Your task to perform on an android device: Open Chrome and go to the settings page Image 0: 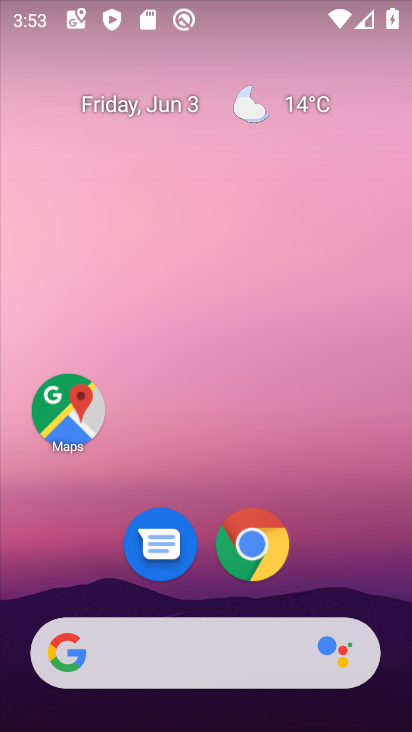
Step 0: click (256, 542)
Your task to perform on an android device: Open Chrome and go to the settings page Image 1: 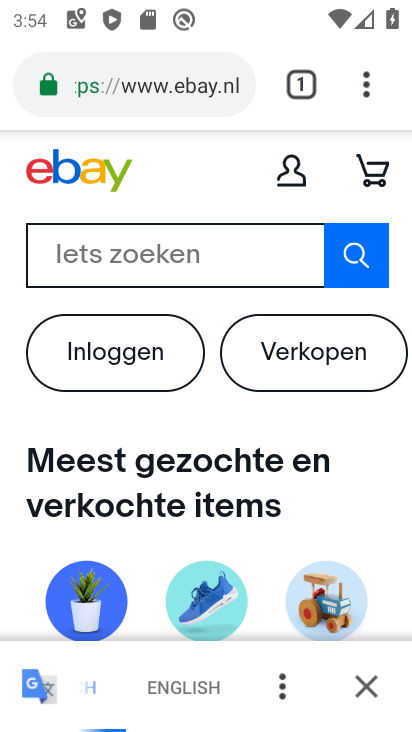
Step 1: click (364, 91)
Your task to perform on an android device: Open Chrome and go to the settings page Image 2: 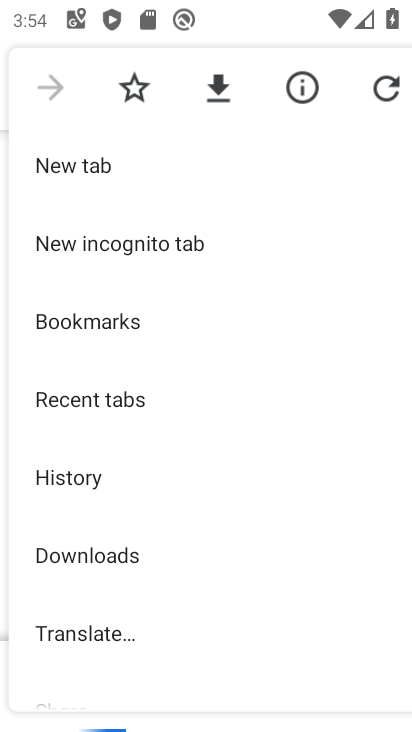
Step 2: drag from (198, 605) to (210, 166)
Your task to perform on an android device: Open Chrome and go to the settings page Image 3: 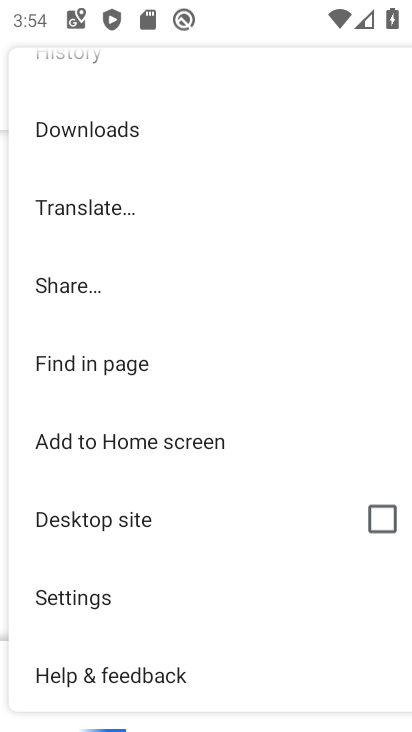
Step 3: click (70, 597)
Your task to perform on an android device: Open Chrome and go to the settings page Image 4: 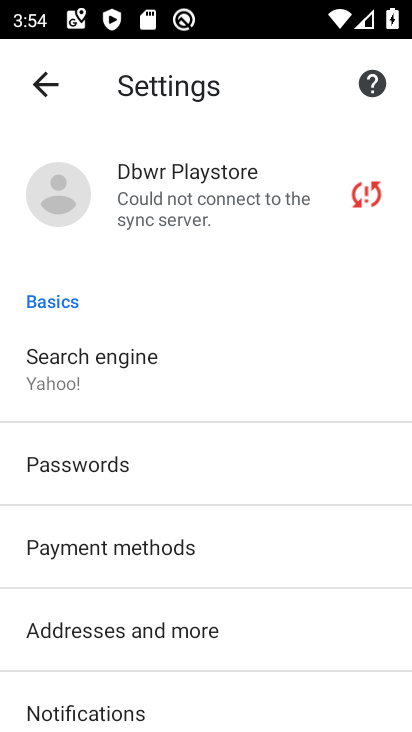
Step 4: task complete